Your task to perform on an android device: Turn on the flashlight Image 0: 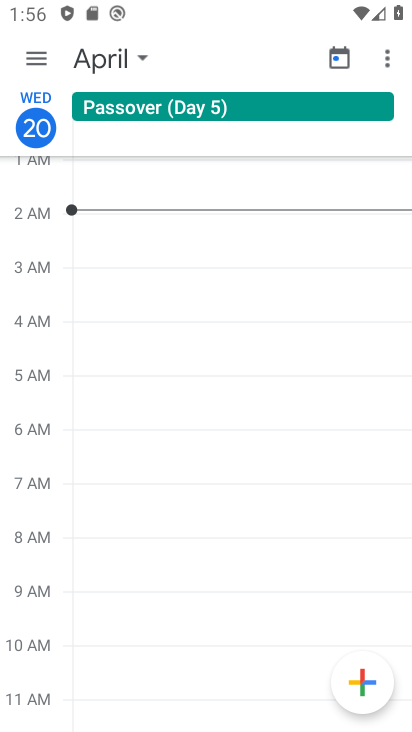
Step 0: drag from (316, 0) to (220, 615)
Your task to perform on an android device: Turn on the flashlight Image 1: 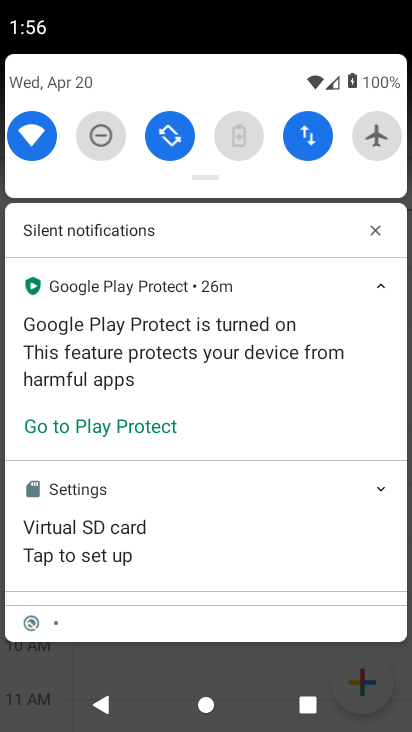
Step 1: task complete